Your task to perform on an android device: Open Yahoo.com Image 0: 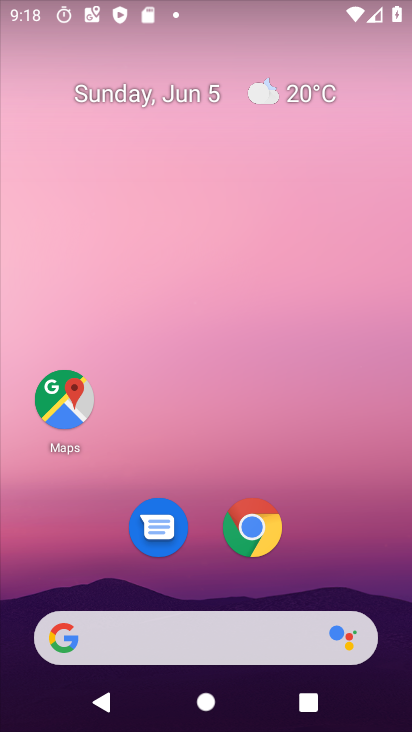
Step 0: drag from (295, 553) to (306, 10)
Your task to perform on an android device: Open Yahoo.com Image 1: 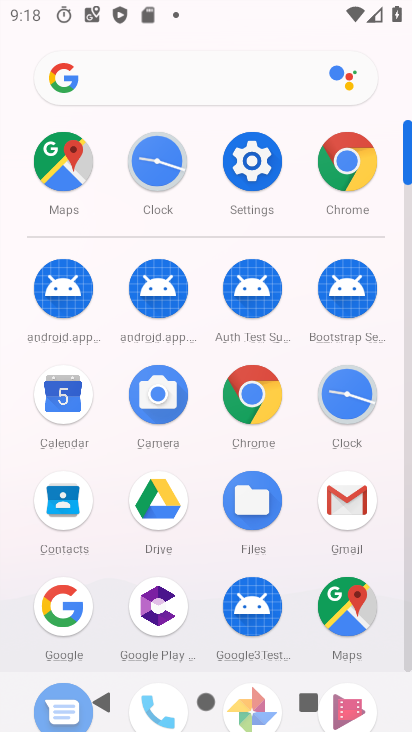
Step 1: click (343, 139)
Your task to perform on an android device: Open Yahoo.com Image 2: 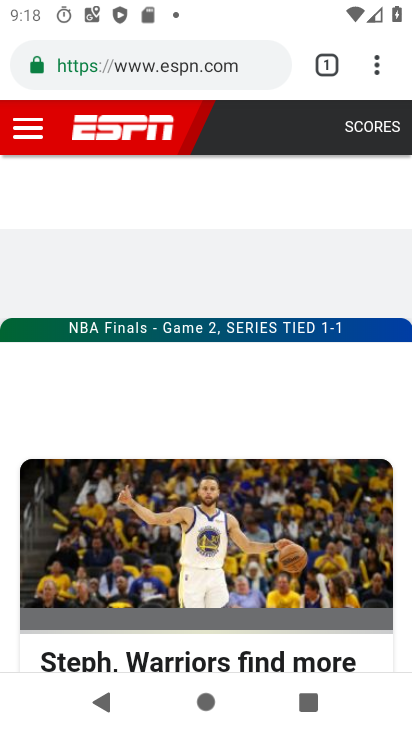
Step 2: click (100, 42)
Your task to perform on an android device: Open Yahoo.com Image 3: 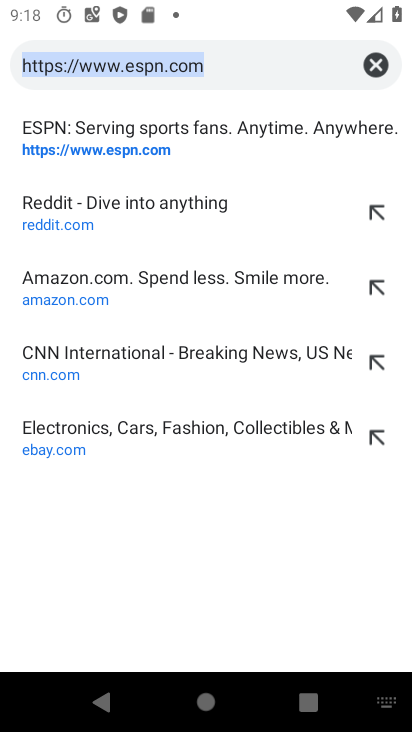
Step 3: click (371, 61)
Your task to perform on an android device: Open Yahoo.com Image 4: 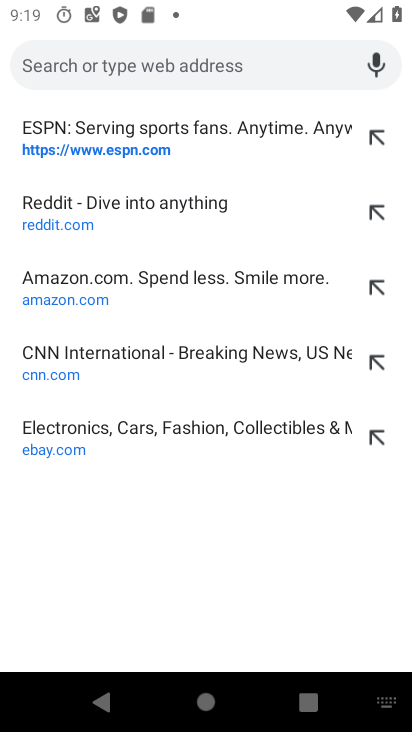
Step 4: type "yahoo"
Your task to perform on an android device: Open Yahoo.com Image 5: 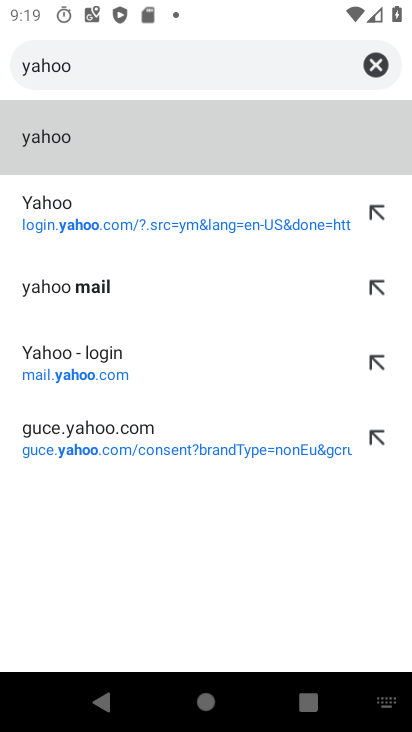
Step 5: click (19, 211)
Your task to perform on an android device: Open Yahoo.com Image 6: 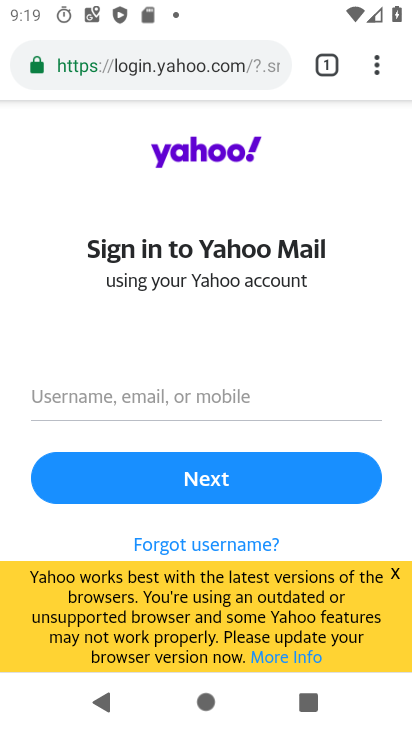
Step 6: task complete